Your task to perform on an android device: toggle translation in the chrome app Image 0: 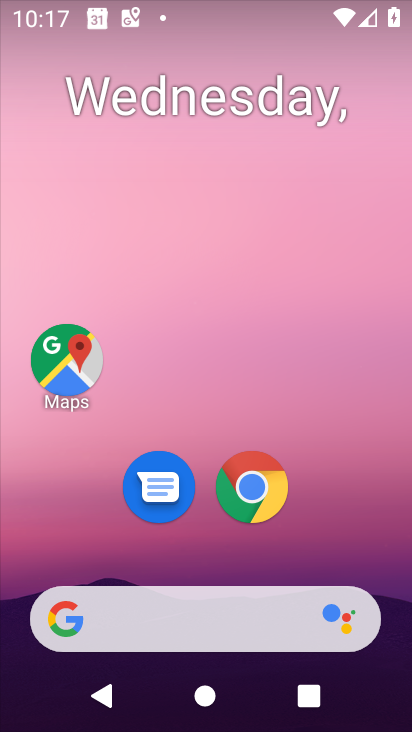
Step 0: click (268, 464)
Your task to perform on an android device: toggle translation in the chrome app Image 1: 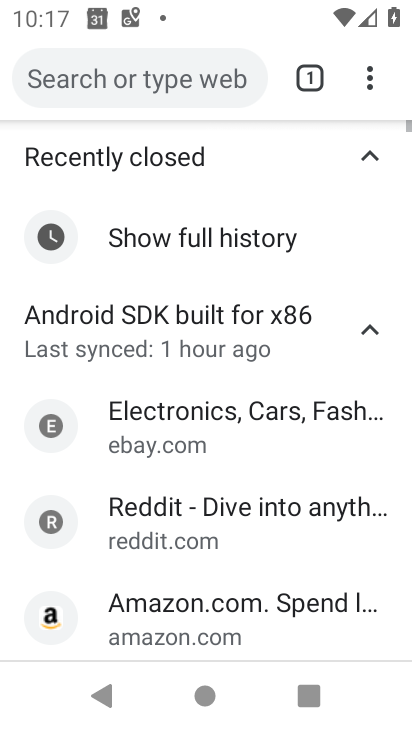
Step 1: click (370, 79)
Your task to perform on an android device: toggle translation in the chrome app Image 2: 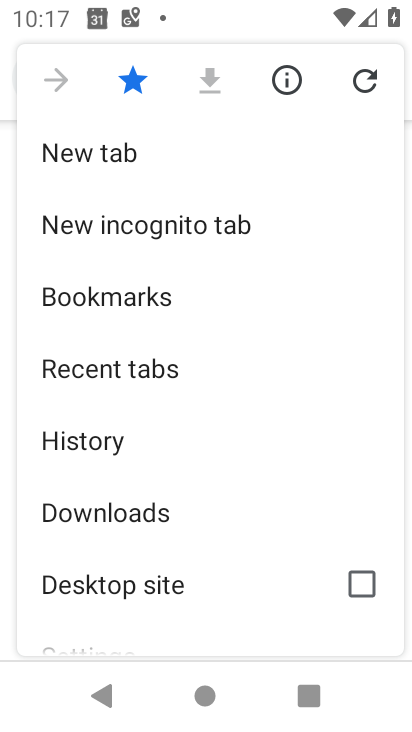
Step 2: click (66, 642)
Your task to perform on an android device: toggle translation in the chrome app Image 3: 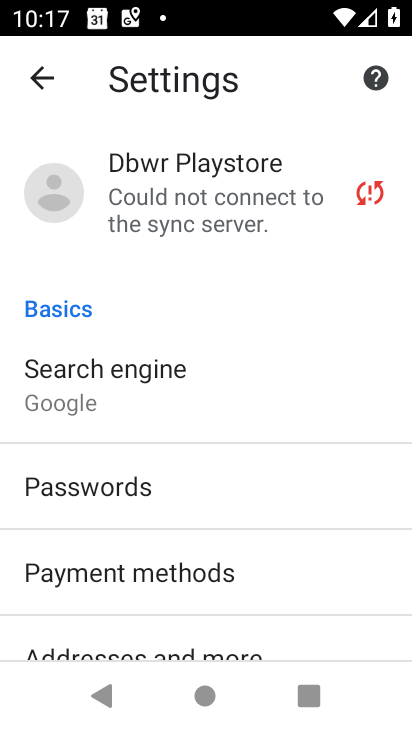
Step 3: drag from (272, 555) to (384, 30)
Your task to perform on an android device: toggle translation in the chrome app Image 4: 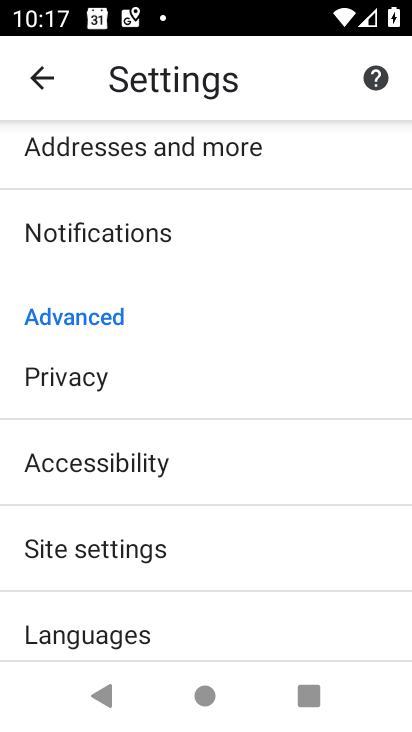
Step 4: click (165, 640)
Your task to perform on an android device: toggle translation in the chrome app Image 5: 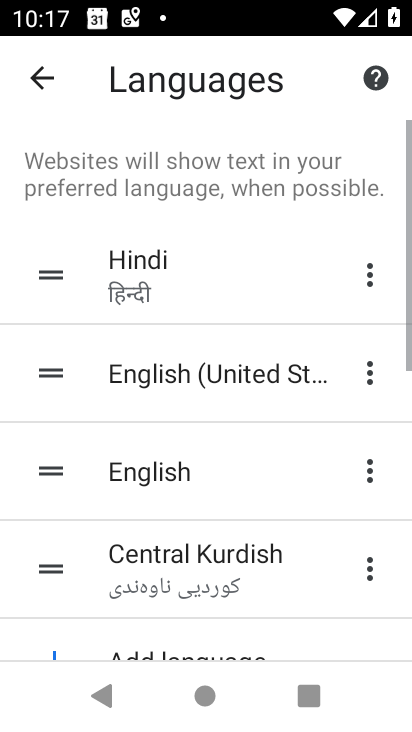
Step 5: drag from (227, 580) to (304, 27)
Your task to perform on an android device: toggle translation in the chrome app Image 6: 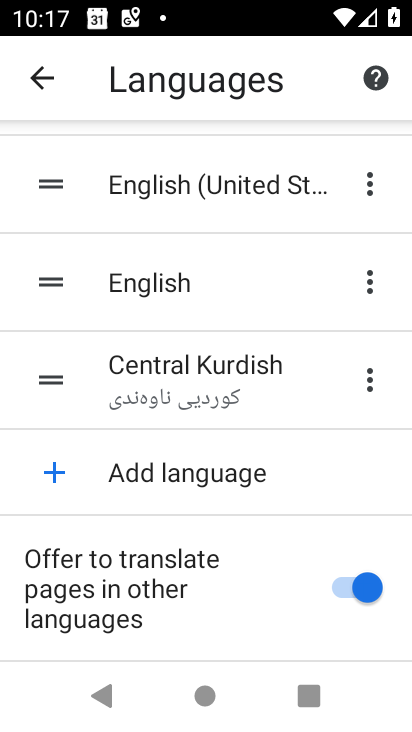
Step 6: click (374, 589)
Your task to perform on an android device: toggle translation in the chrome app Image 7: 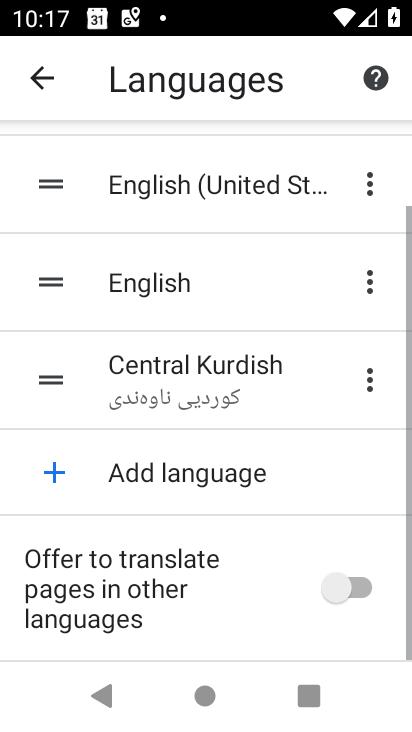
Step 7: task complete